Your task to perform on an android device: Open the Play Movies app and select the watchlist tab. Image 0: 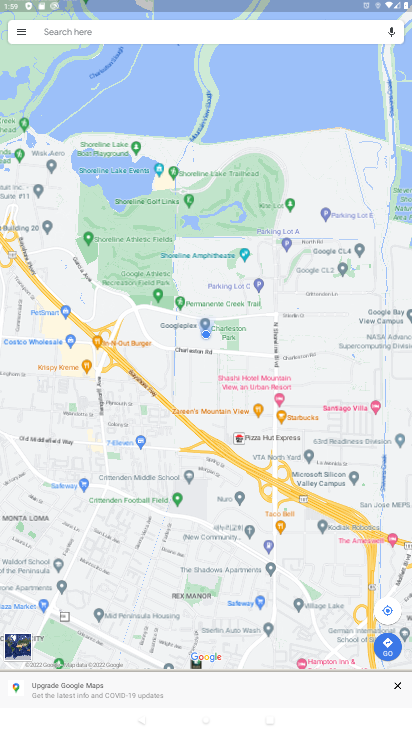
Step 0: press home button
Your task to perform on an android device: Open the Play Movies app and select the watchlist tab. Image 1: 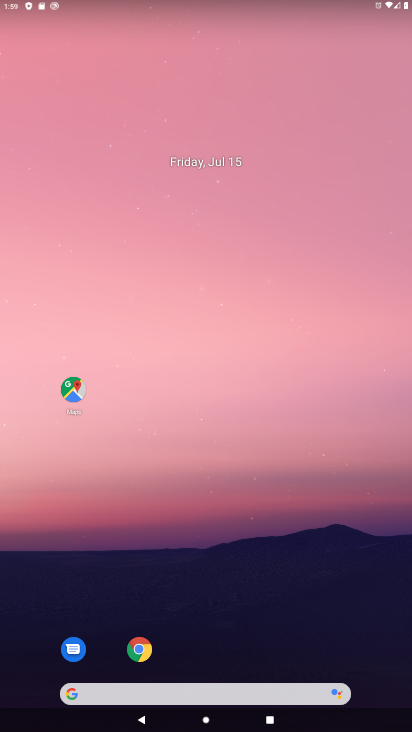
Step 1: drag from (189, 661) to (263, 107)
Your task to perform on an android device: Open the Play Movies app and select the watchlist tab. Image 2: 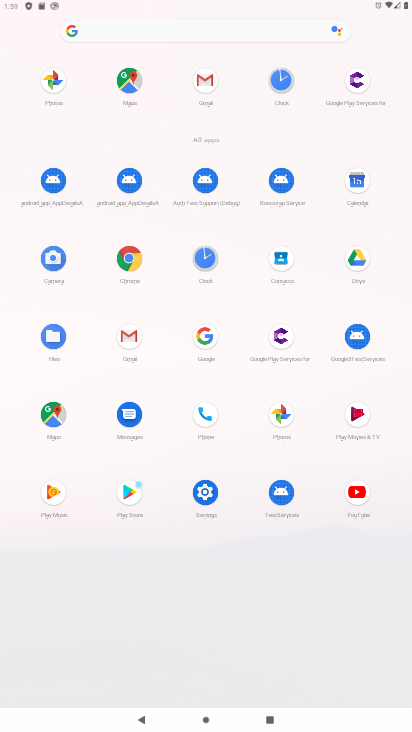
Step 2: click (367, 413)
Your task to perform on an android device: Open the Play Movies app and select the watchlist tab. Image 3: 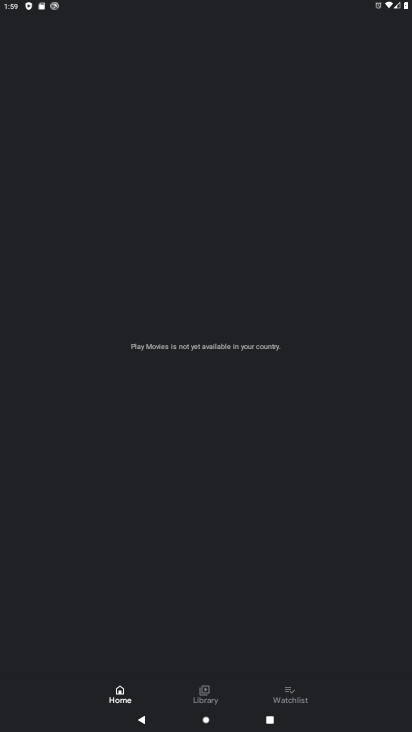
Step 3: click (286, 692)
Your task to perform on an android device: Open the Play Movies app and select the watchlist tab. Image 4: 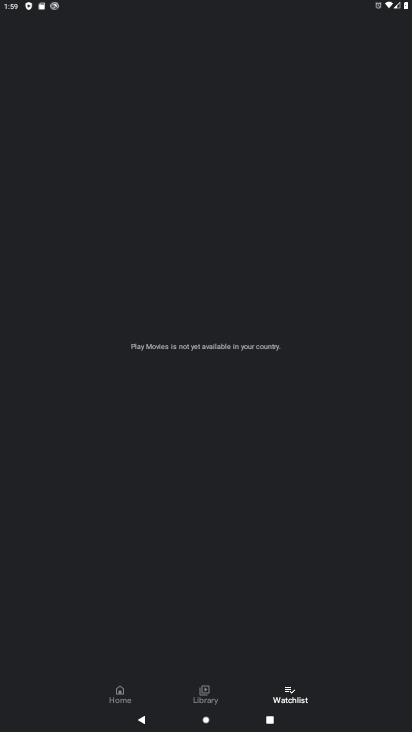
Step 4: task complete